Your task to perform on an android device: delete browsing data in the chrome app Image 0: 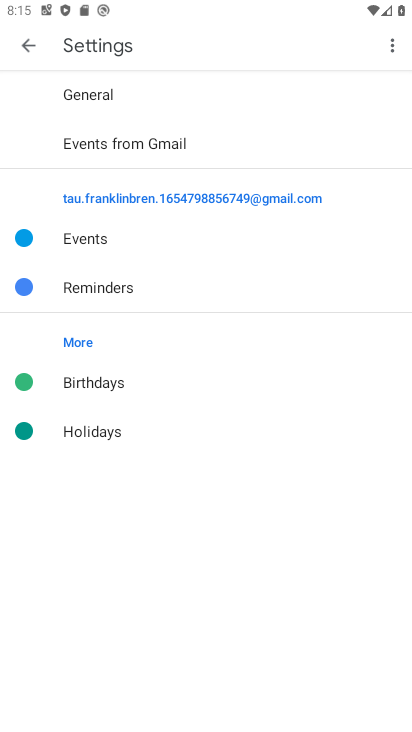
Step 0: press home button
Your task to perform on an android device: delete browsing data in the chrome app Image 1: 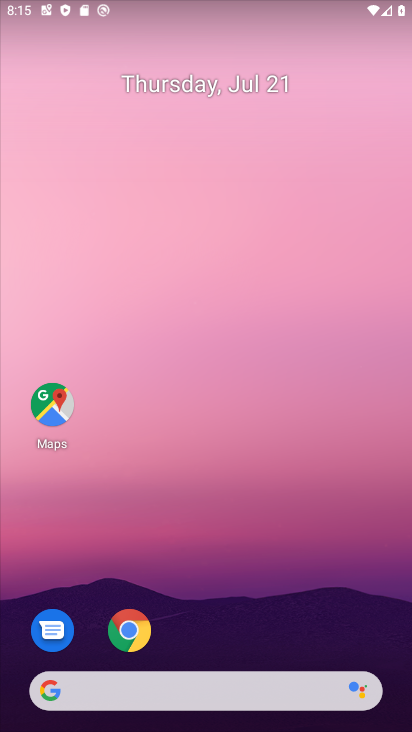
Step 1: click (123, 630)
Your task to perform on an android device: delete browsing data in the chrome app Image 2: 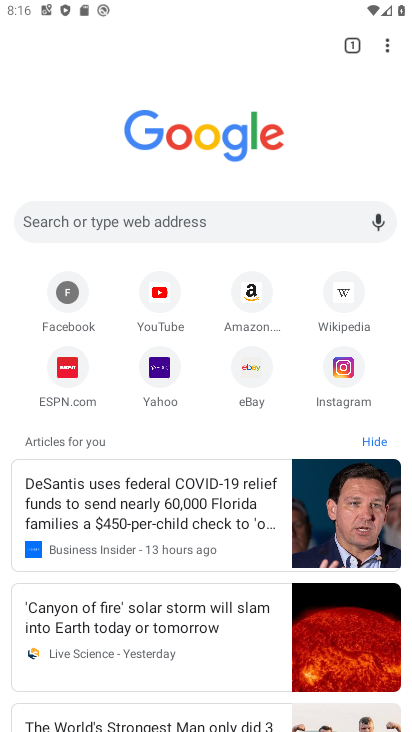
Step 2: click (389, 48)
Your task to perform on an android device: delete browsing data in the chrome app Image 3: 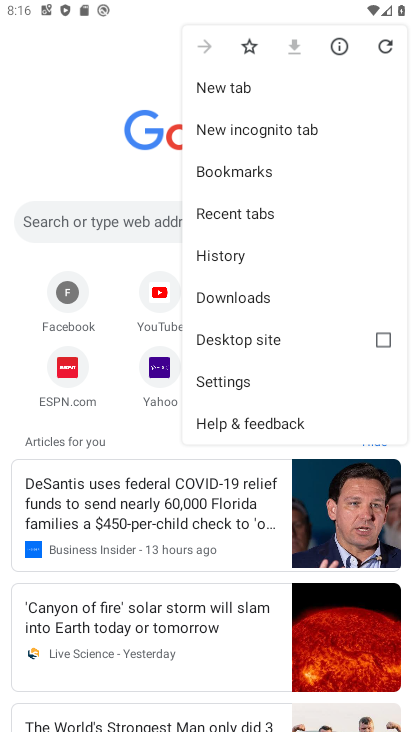
Step 3: click (264, 246)
Your task to perform on an android device: delete browsing data in the chrome app Image 4: 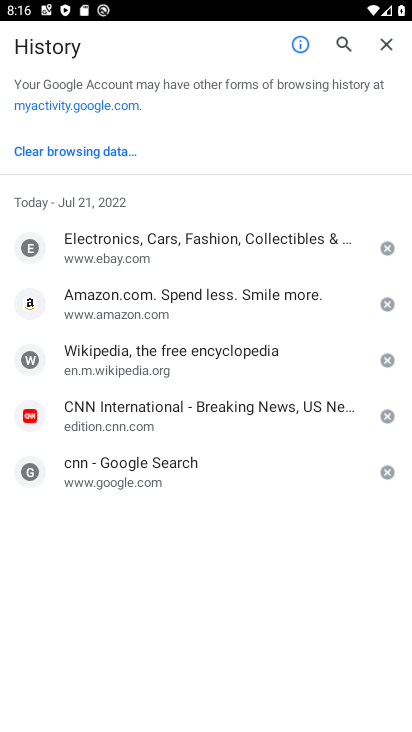
Step 4: click (36, 147)
Your task to perform on an android device: delete browsing data in the chrome app Image 5: 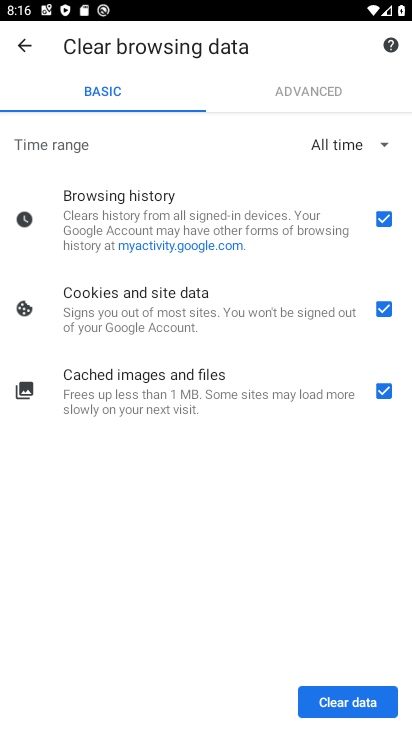
Step 5: click (342, 689)
Your task to perform on an android device: delete browsing data in the chrome app Image 6: 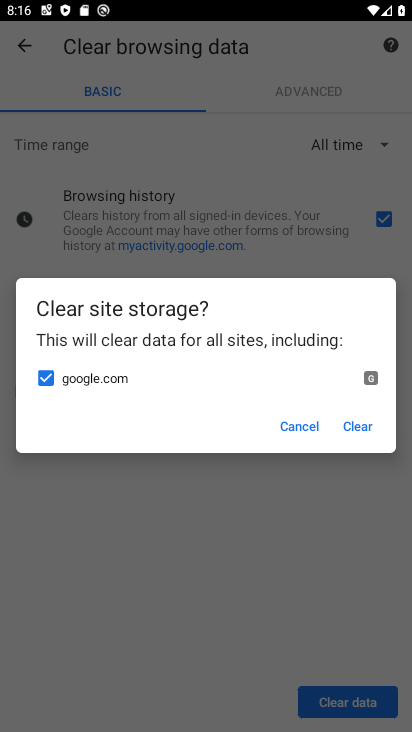
Step 6: click (356, 426)
Your task to perform on an android device: delete browsing data in the chrome app Image 7: 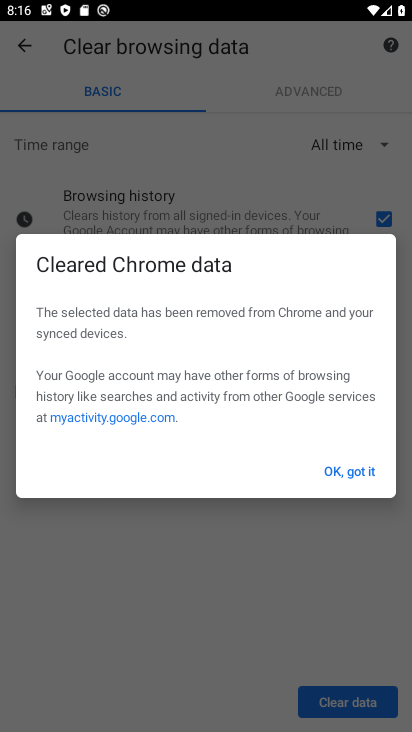
Step 7: task complete